Your task to perform on an android device: turn vacation reply on in the gmail app Image 0: 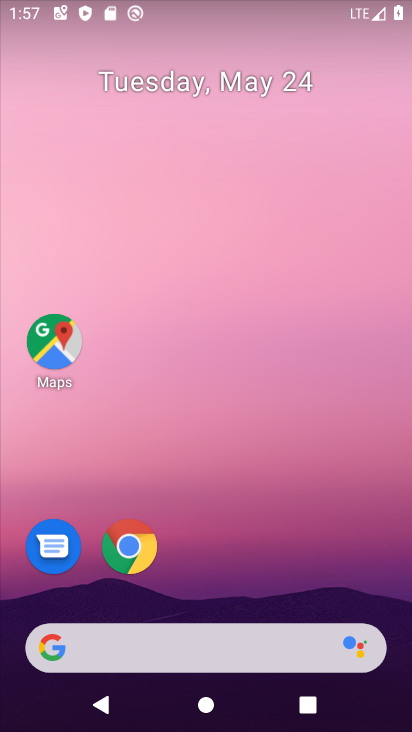
Step 0: drag from (246, 367) to (310, 92)
Your task to perform on an android device: turn vacation reply on in the gmail app Image 1: 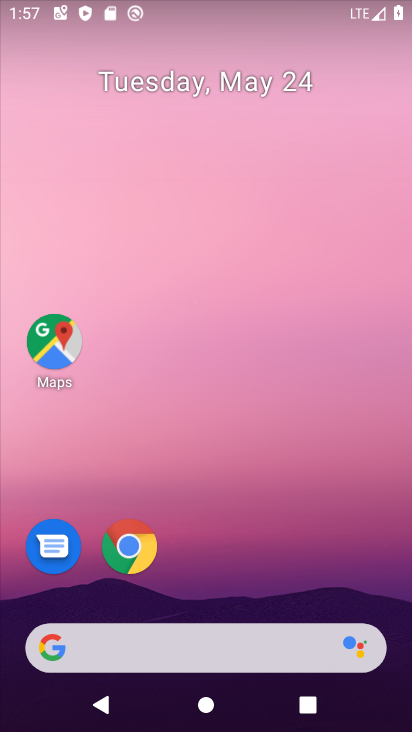
Step 1: drag from (195, 577) to (357, 19)
Your task to perform on an android device: turn vacation reply on in the gmail app Image 2: 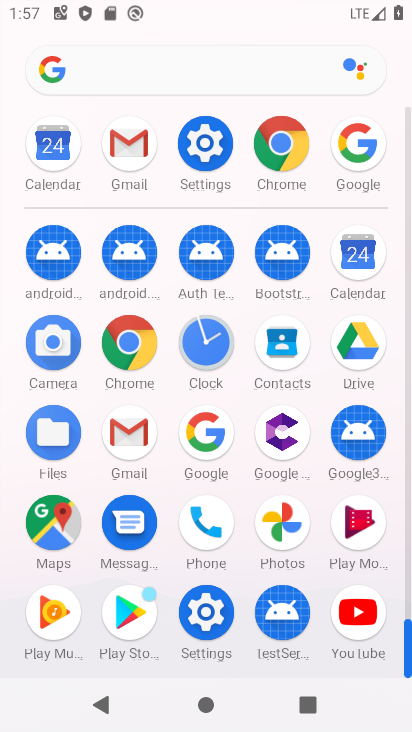
Step 2: click (134, 440)
Your task to perform on an android device: turn vacation reply on in the gmail app Image 3: 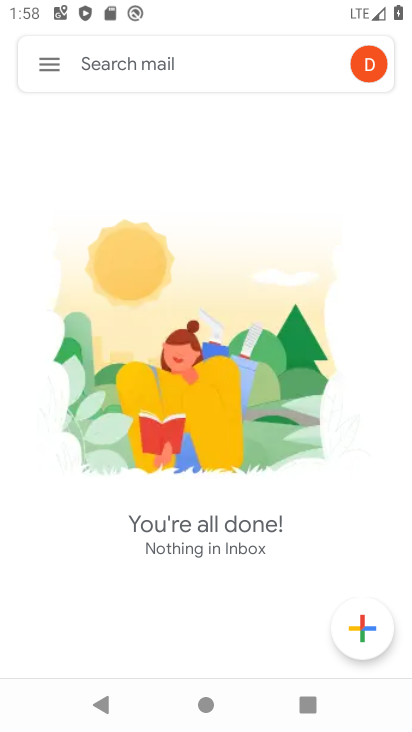
Step 3: click (48, 51)
Your task to perform on an android device: turn vacation reply on in the gmail app Image 4: 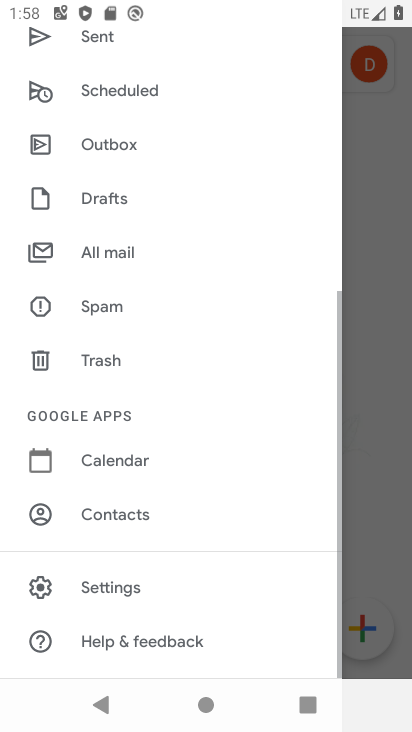
Step 4: click (139, 589)
Your task to perform on an android device: turn vacation reply on in the gmail app Image 5: 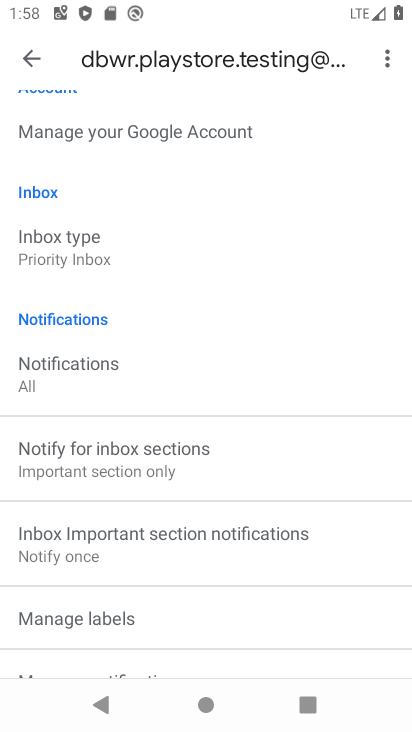
Step 5: drag from (212, 600) to (217, 427)
Your task to perform on an android device: turn vacation reply on in the gmail app Image 6: 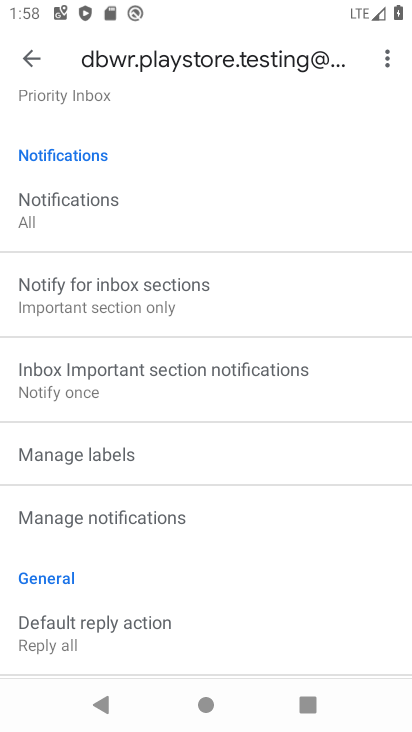
Step 6: drag from (164, 586) to (214, 249)
Your task to perform on an android device: turn vacation reply on in the gmail app Image 7: 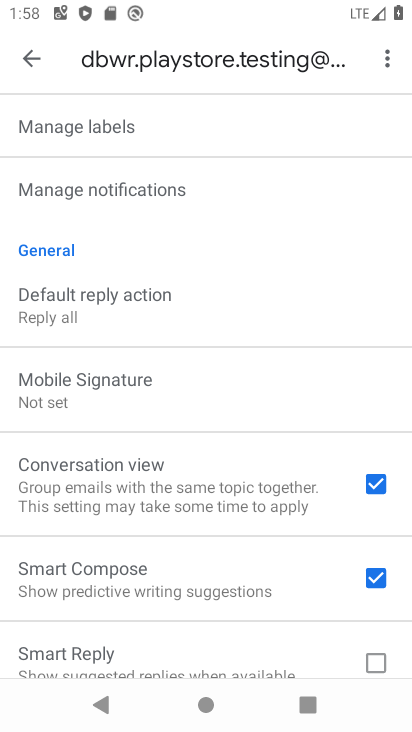
Step 7: drag from (182, 566) to (290, 80)
Your task to perform on an android device: turn vacation reply on in the gmail app Image 8: 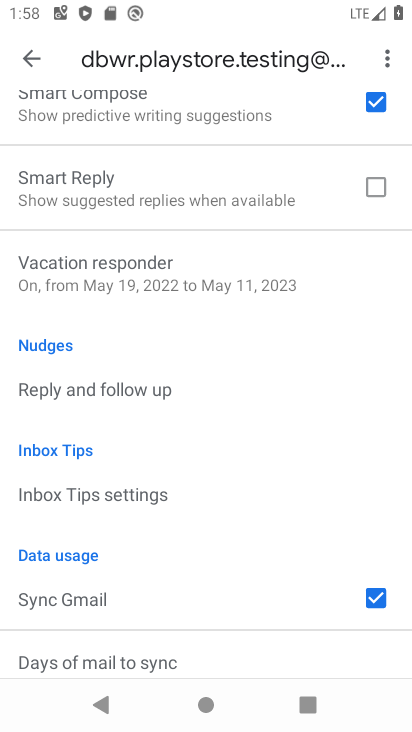
Step 8: drag from (193, 582) to (270, 99)
Your task to perform on an android device: turn vacation reply on in the gmail app Image 9: 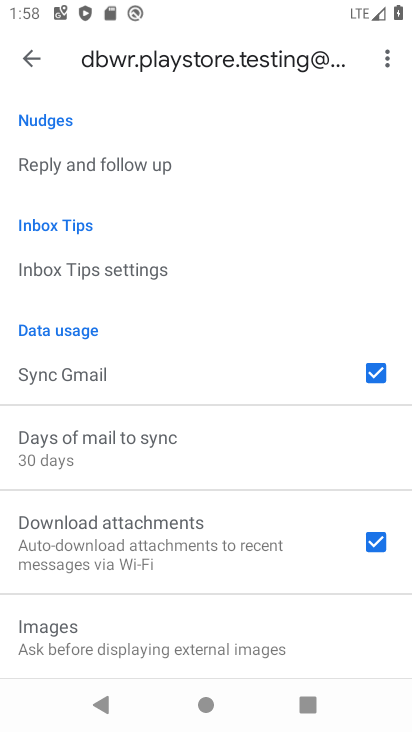
Step 9: drag from (223, 241) to (258, 672)
Your task to perform on an android device: turn vacation reply on in the gmail app Image 10: 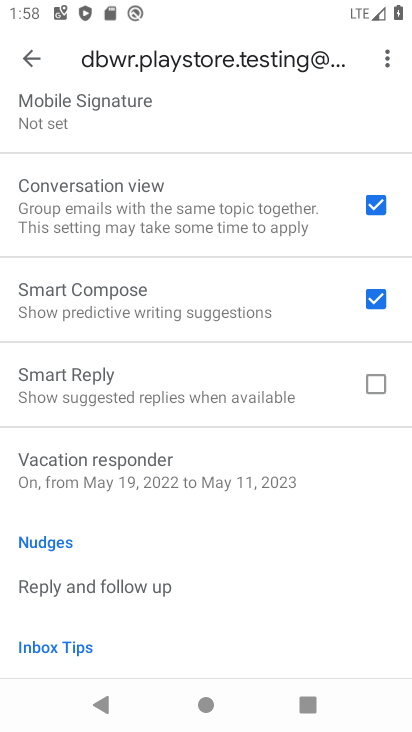
Step 10: click (159, 469)
Your task to perform on an android device: turn vacation reply on in the gmail app Image 11: 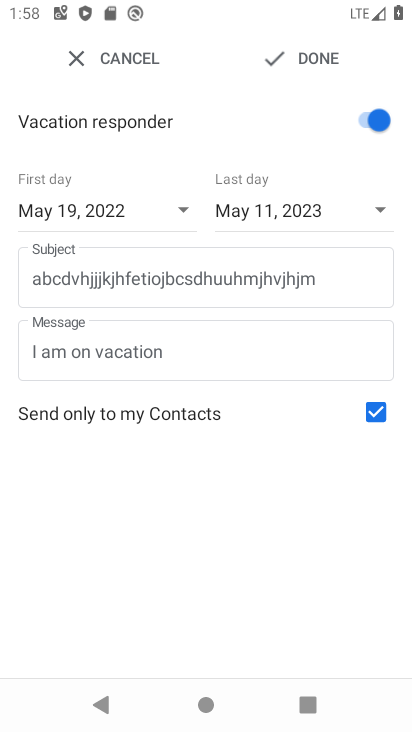
Step 11: click (287, 67)
Your task to perform on an android device: turn vacation reply on in the gmail app Image 12: 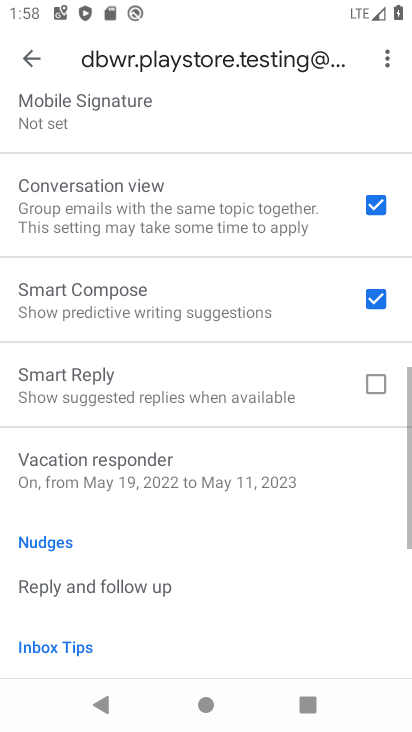
Step 12: task complete